Your task to perform on an android device: toggle sleep mode Image 0: 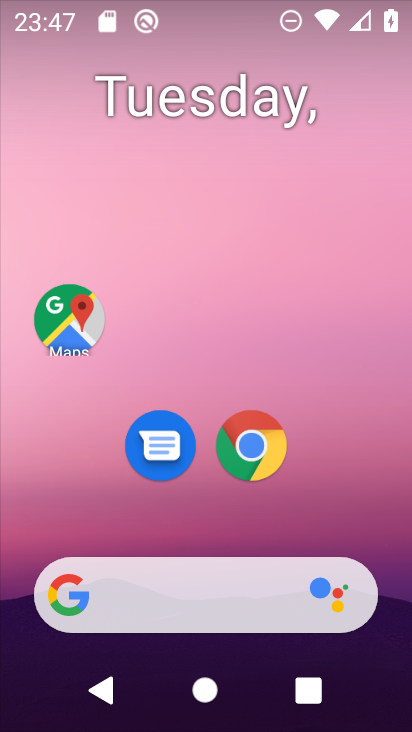
Step 0: drag from (215, 542) to (332, 67)
Your task to perform on an android device: toggle sleep mode Image 1: 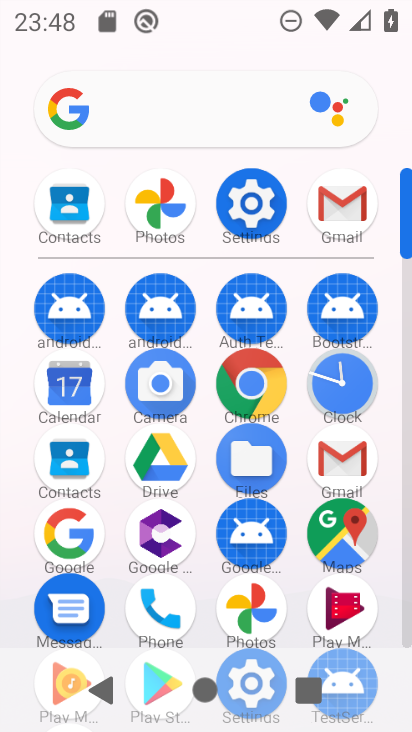
Step 1: click (241, 205)
Your task to perform on an android device: toggle sleep mode Image 2: 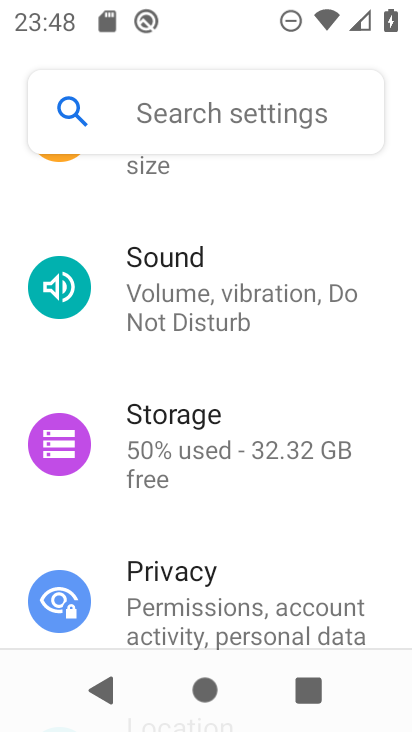
Step 2: task complete